Your task to perform on an android device: turn vacation reply on in the gmail app Image 0: 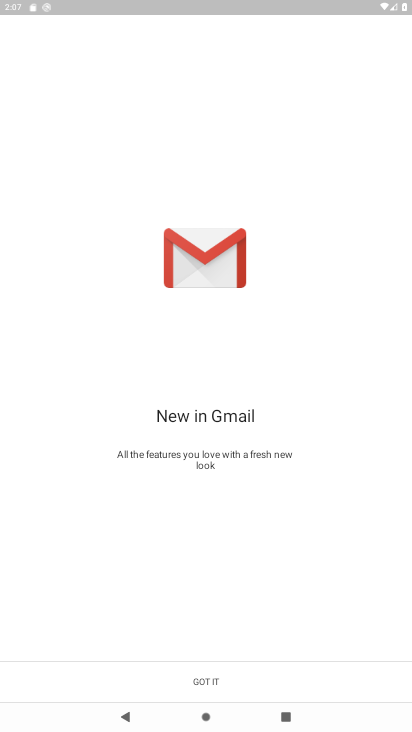
Step 0: press home button
Your task to perform on an android device: turn vacation reply on in the gmail app Image 1: 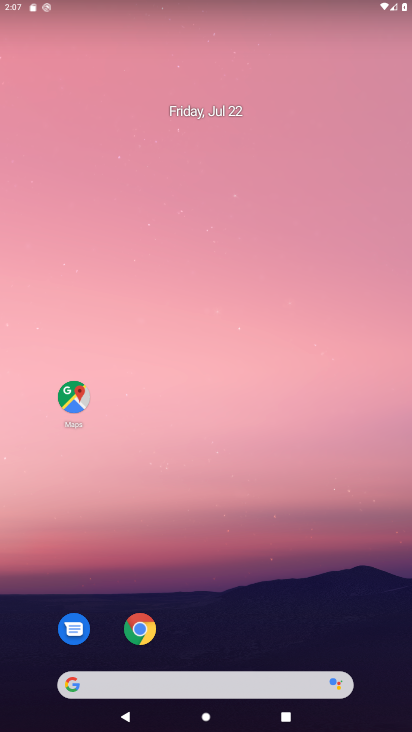
Step 1: drag from (192, 679) to (211, 254)
Your task to perform on an android device: turn vacation reply on in the gmail app Image 2: 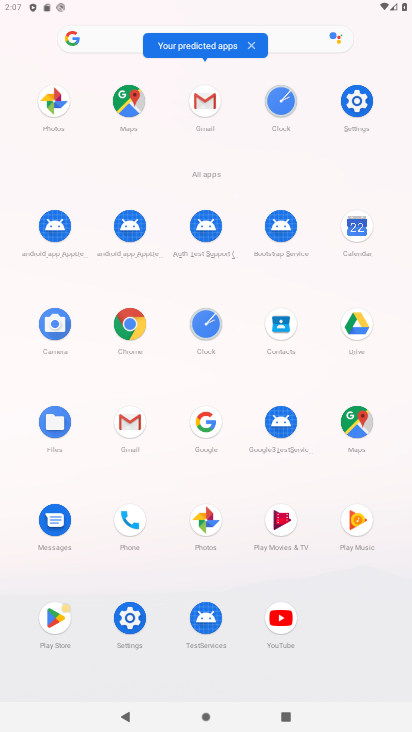
Step 2: click (135, 417)
Your task to perform on an android device: turn vacation reply on in the gmail app Image 3: 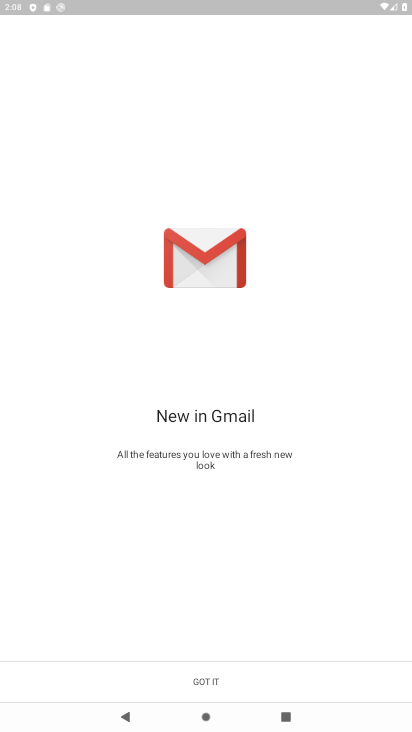
Step 3: click (182, 673)
Your task to perform on an android device: turn vacation reply on in the gmail app Image 4: 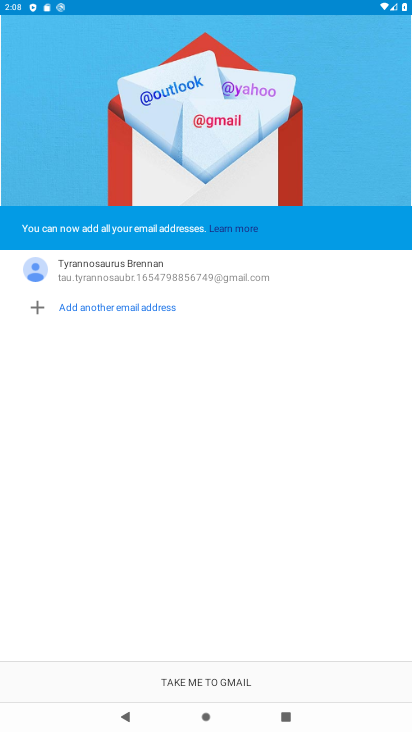
Step 4: click (182, 674)
Your task to perform on an android device: turn vacation reply on in the gmail app Image 5: 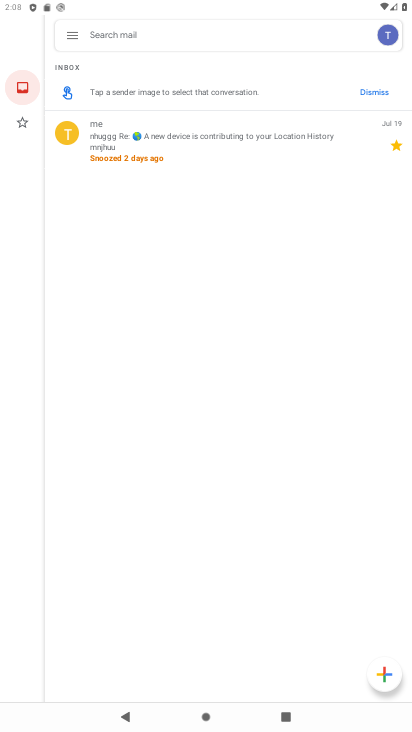
Step 5: click (66, 34)
Your task to perform on an android device: turn vacation reply on in the gmail app Image 6: 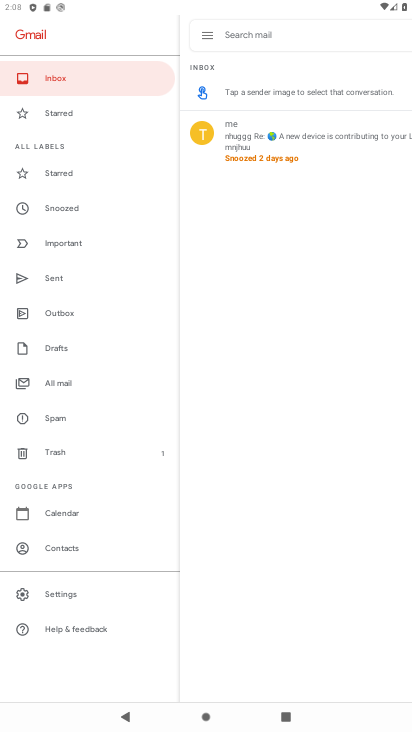
Step 6: click (62, 584)
Your task to perform on an android device: turn vacation reply on in the gmail app Image 7: 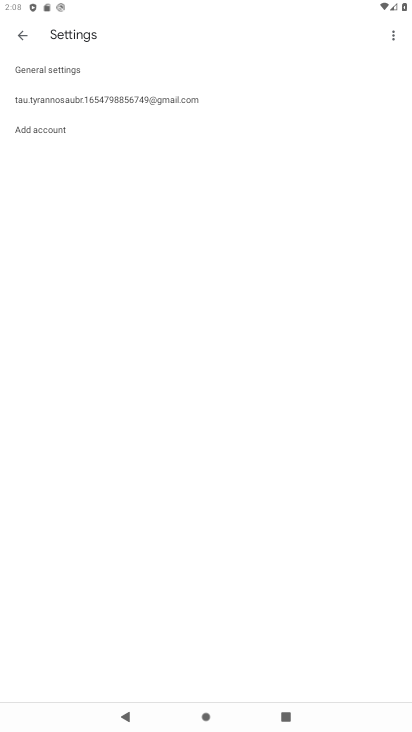
Step 7: click (118, 101)
Your task to perform on an android device: turn vacation reply on in the gmail app Image 8: 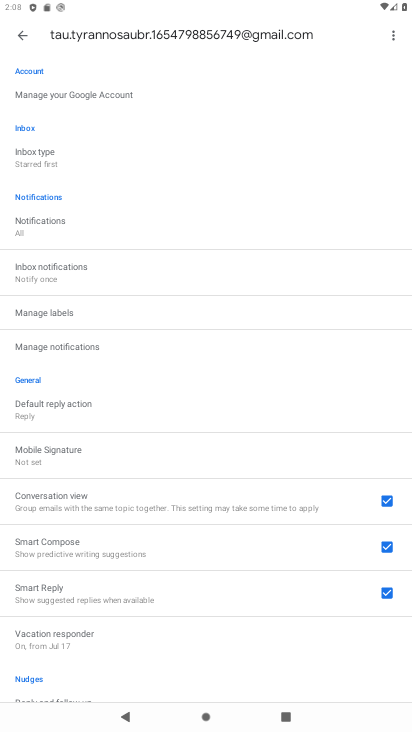
Step 8: click (172, 631)
Your task to perform on an android device: turn vacation reply on in the gmail app Image 9: 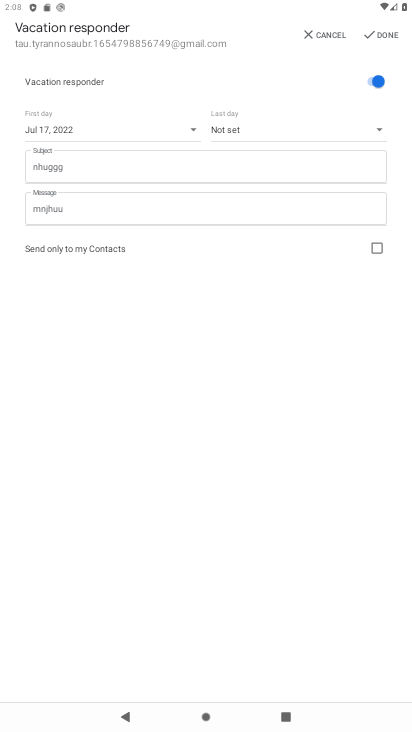
Step 9: click (377, 37)
Your task to perform on an android device: turn vacation reply on in the gmail app Image 10: 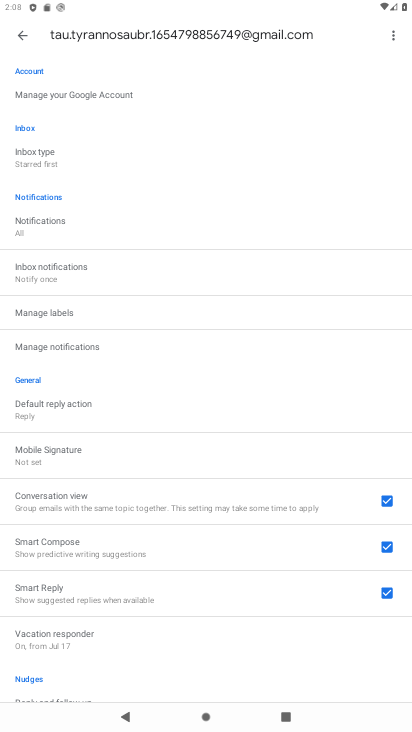
Step 10: task complete